Your task to perform on an android device: toggle airplane mode Image 0: 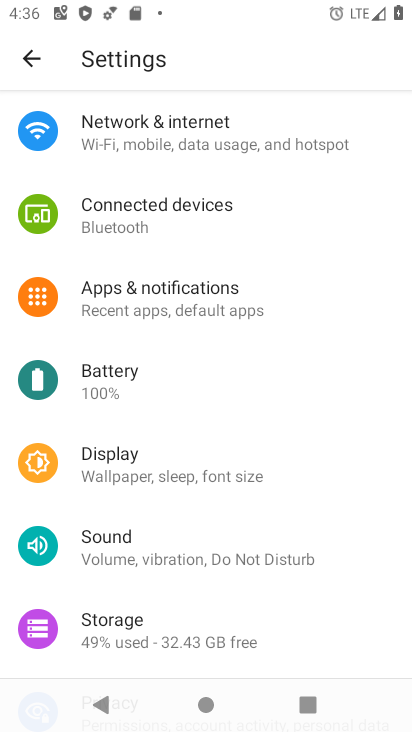
Step 0: drag from (325, 164) to (360, 652)
Your task to perform on an android device: toggle airplane mode Image 1: 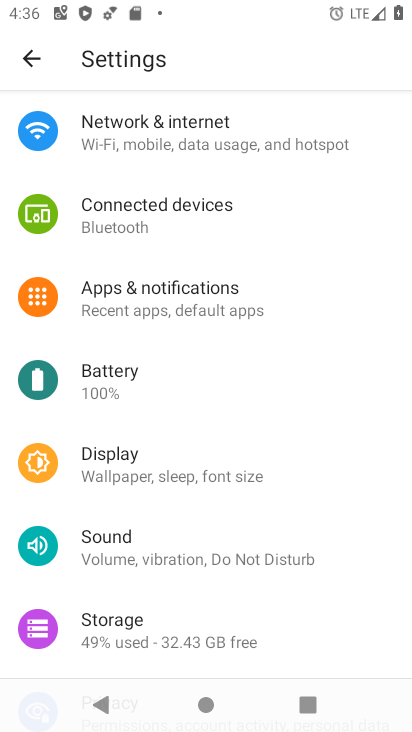
Step 1: drag from (277, 151) to (305, 627)
Your task to perform on an android device: toggle airplane mode Image 2: 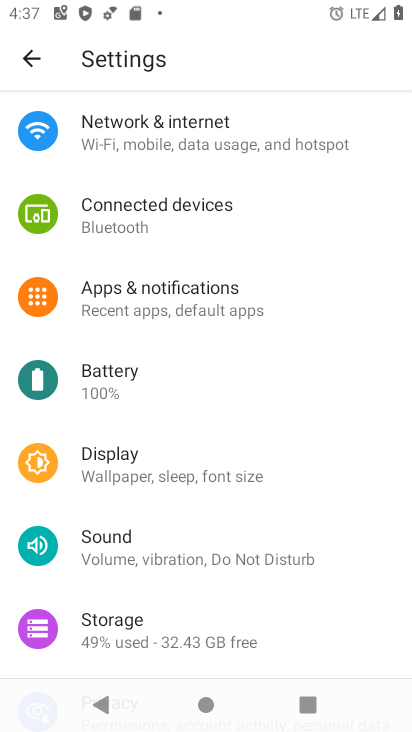
Step 2: click (197, 139)
Your task to perform on an android device: toggle airplane mode Image 3: 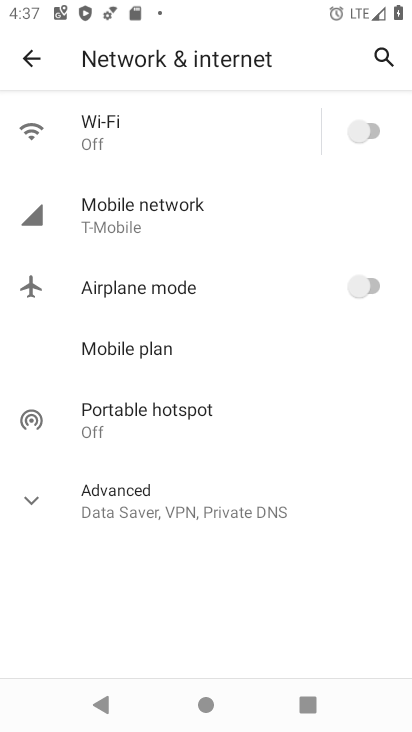
Step 3: click (367, 289)
Your task to perform on an android device: toggle airplane mode Image 4: 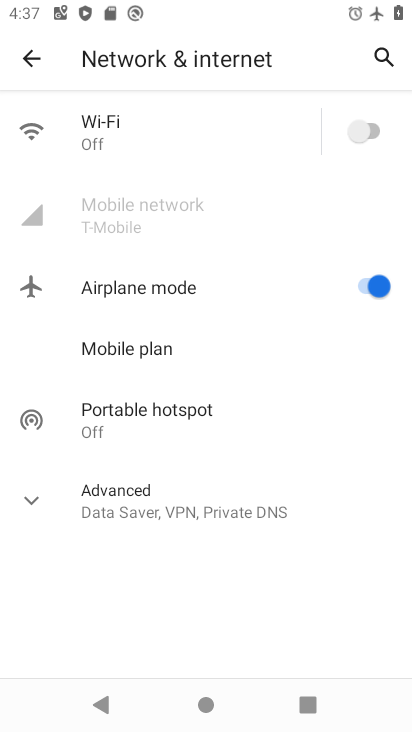
Step 4: task complete